Your task to perform on an android device: open wifi settings Image 0: 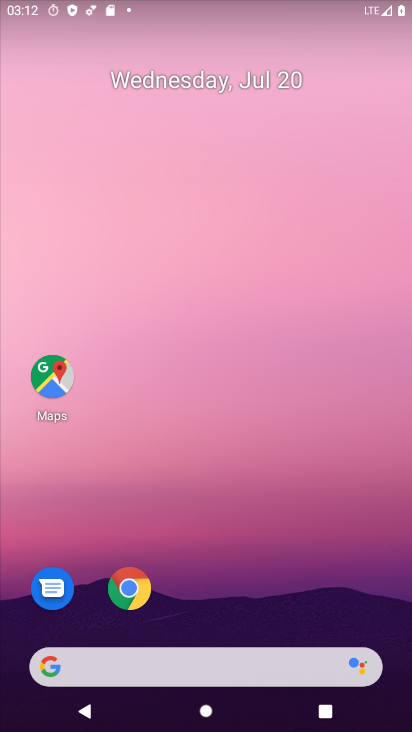
Step 0: click (394, 246)
Your task to perform on an android device: open wifi settings Image 1: 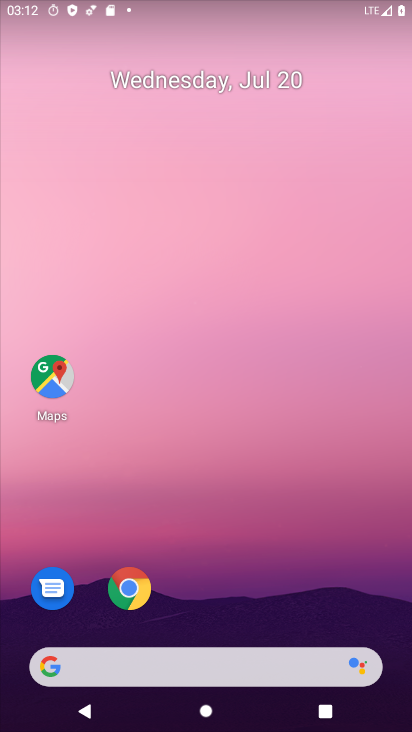
Step 1: drag from (183, 620) to (263, 61)
Your task to perform on an android device: open wifi settings Image 2: 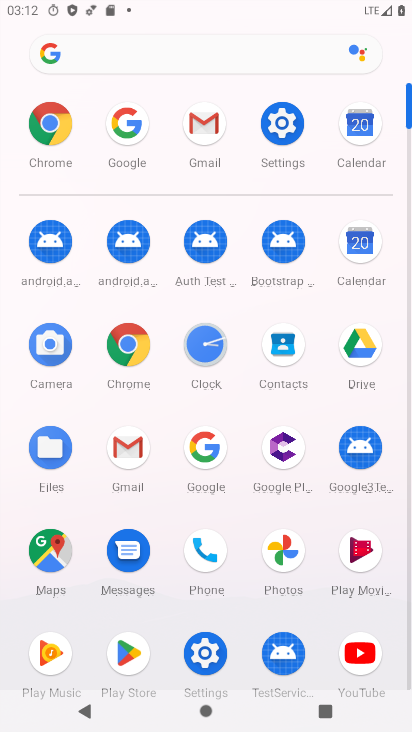
Step 2: click (196, 656)
Your task to perform on an android device: open wifi settings Image 3: 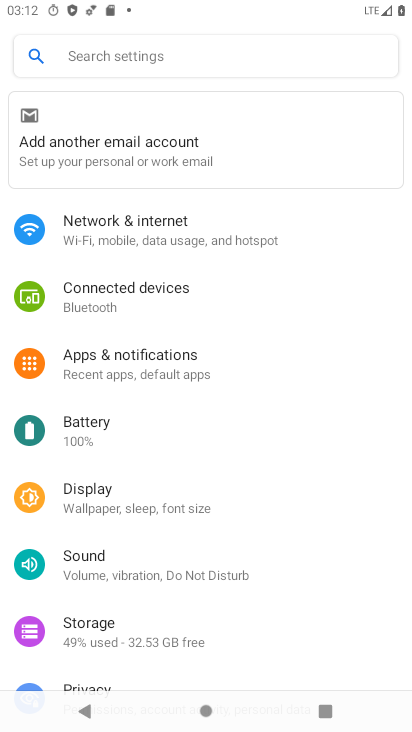
Step 3: click (157, 232)
Your task to perform on an android device: open wifi settings Image 4: 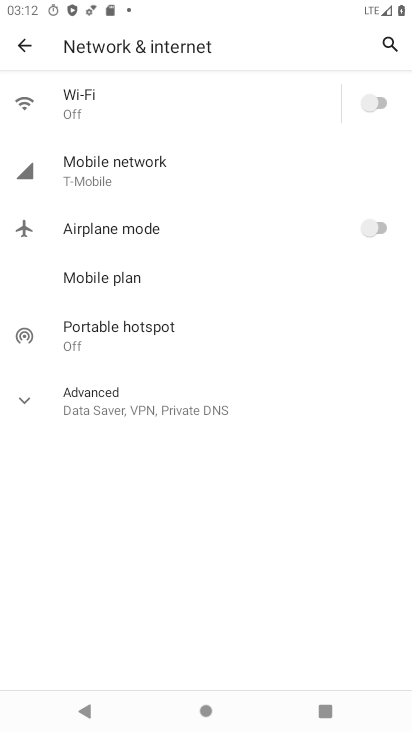
Step 4: click (172, 98)
Your task to perform on an android device: open wifi settings Image 5: 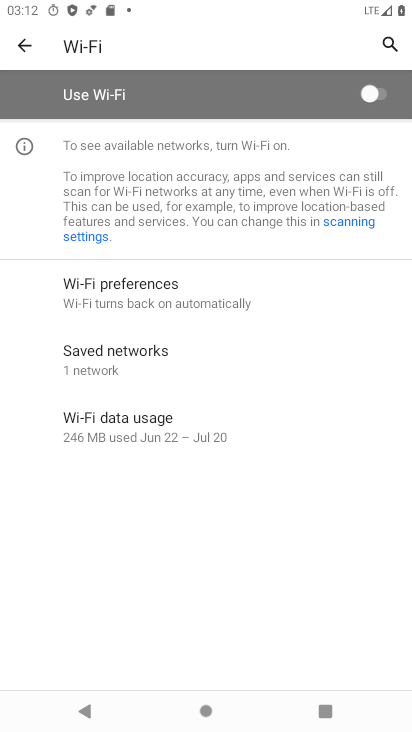
Step 5: task complete